Your task to perform on an android device: Go to sound settings Image 0: 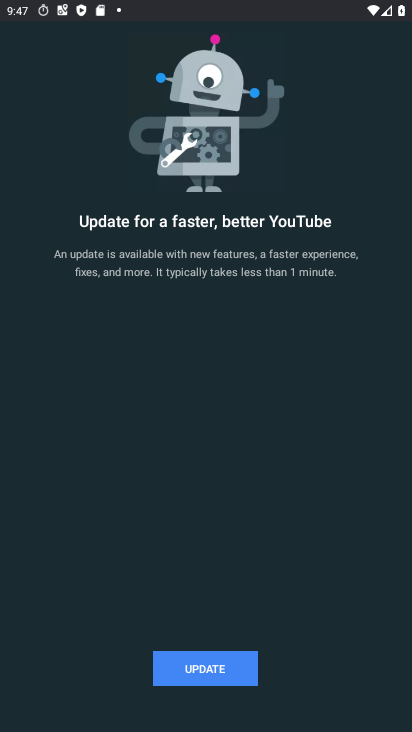
Step 0: press home button
Your task to perform on an android device: Go to sound settings Image 1: 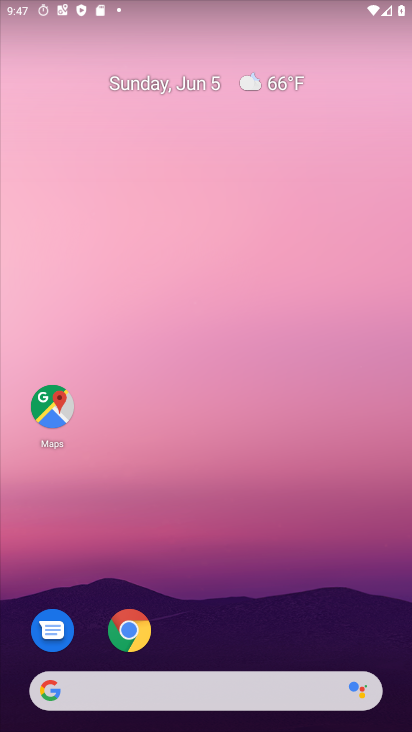
Step 1: drag from (222, 719) to (222, 54)
Your task to perform on an android device: Go to sound settings Image 2: 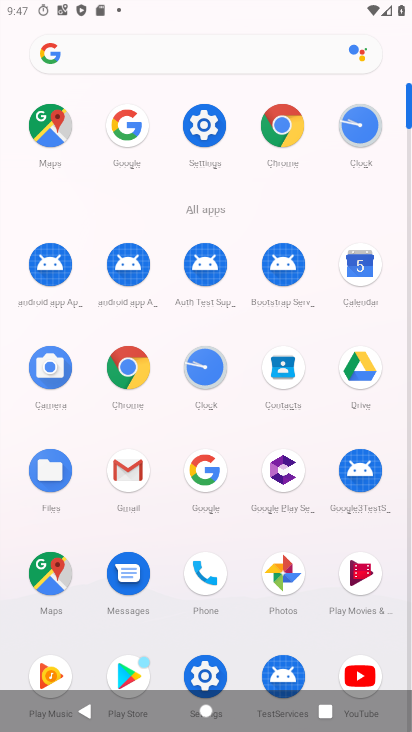
Step 2: click (211, 131)
Your task to perform on an android device: Go to sound settings Image 3: 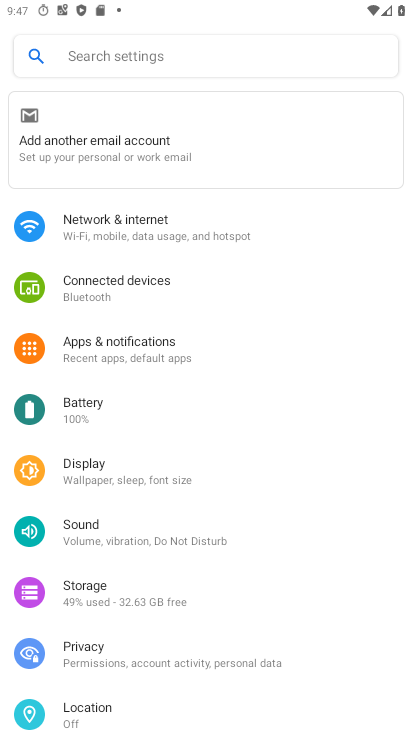
Step 3: click (106, 533)
Your task to perform on an android device: Go to sound settings Image 4: 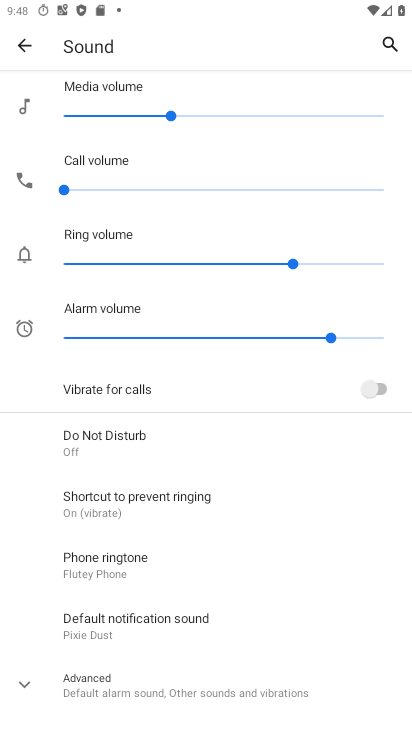
Step 4: task complete